Your task to perform on an android device: turn on priority inbox in the gmail app Image 0: 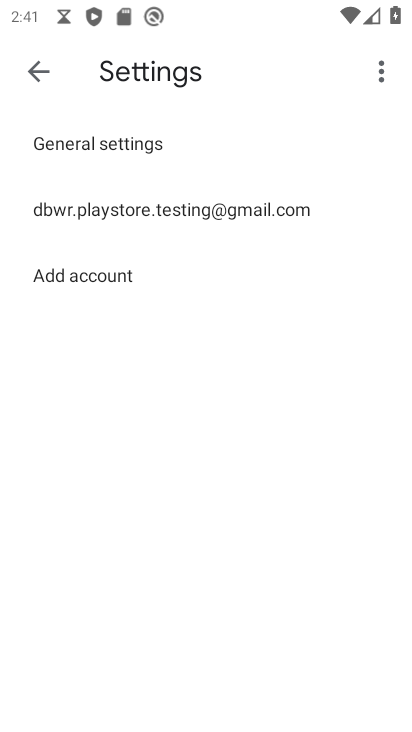
Step 0: press home button
Your task to perform on an android device: turn on priority inbox in the gmail app Image 1: 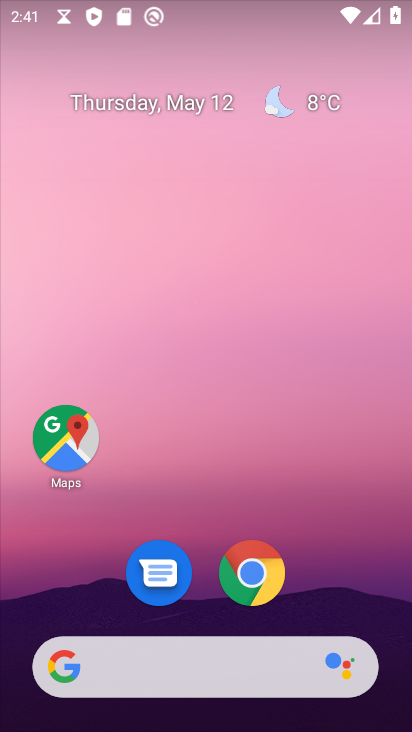
Step 1: drag from (340, 590) to (405, 359)
Your task to perform on an android device: turn on priority inbox in the gmail app Image 2: 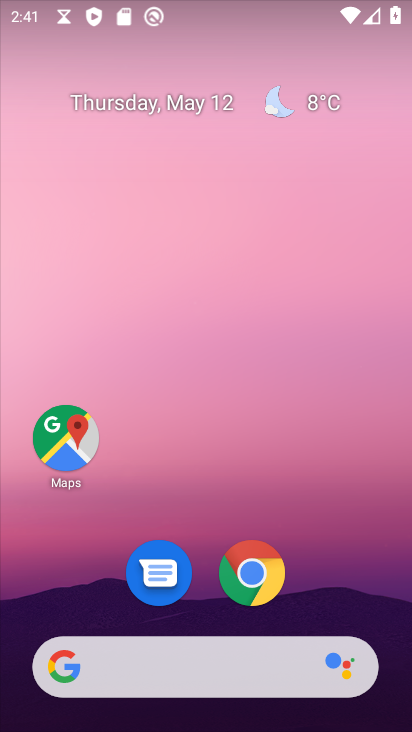
Step 2: drag from (347, 607) to (360, 123)
Your task to perform on an android device: turn on priority inbox in the gmail app Image 3: 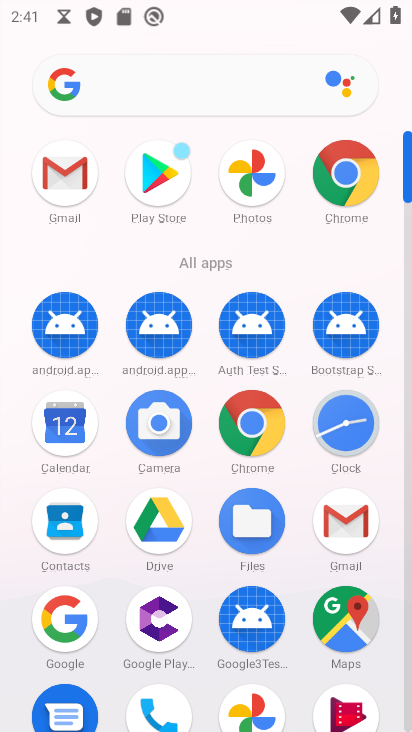
Step 3: click (344, 525)
Your task to perform on an android device: turn on priority inbox in the gmail app Image 4: 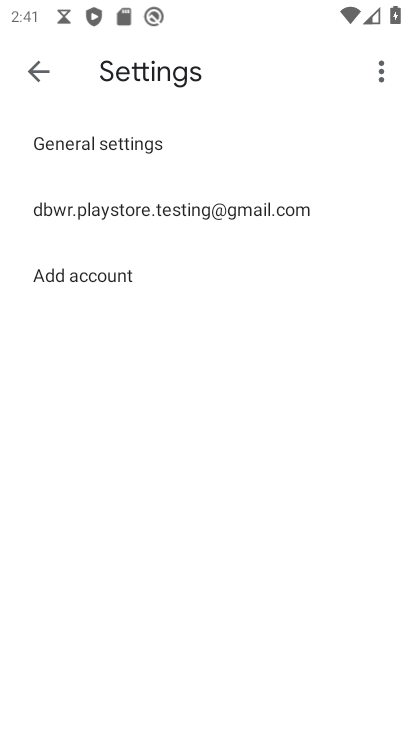
Step 4: click (131, 208)
Your task to perform on an android device: turn on priority inbox in the gmail app Image 5: 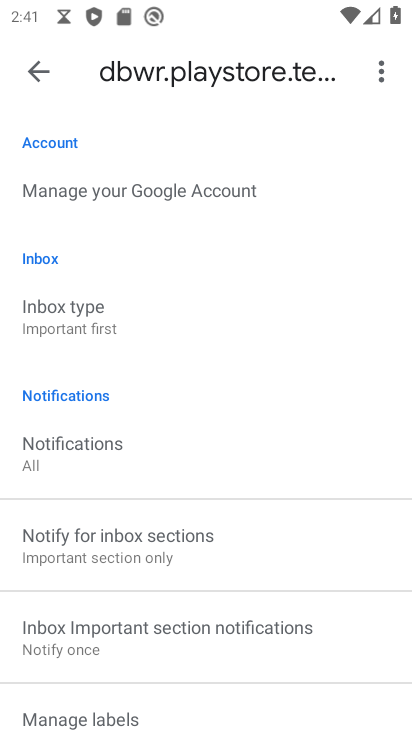
Step 5: click (78, 318)
Your task to perform on an android device: turn on priority inbox in the gmail app Image 6: 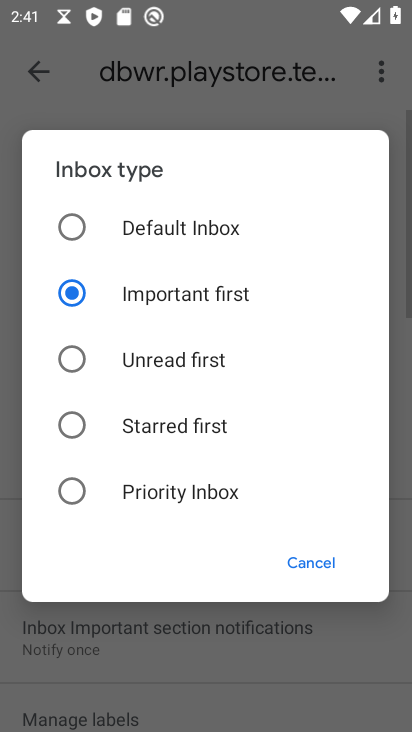
Step 6: click (166, 483)
Your task to perform on an android device: turn on priority inbox in the gmail app Image 7: 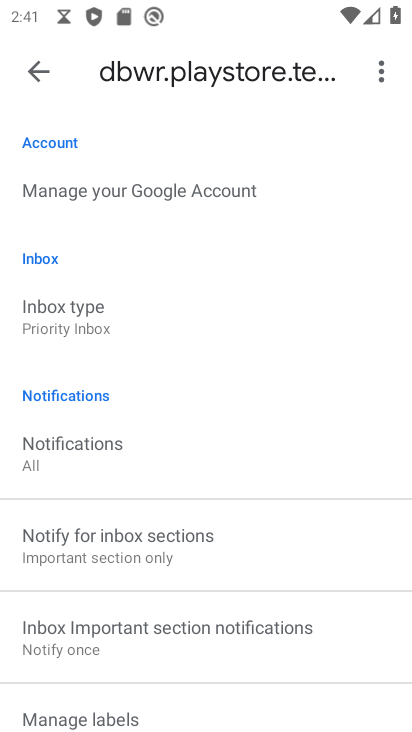
Step 7: task complete